Your task to perform on an android device: Open notification settings Image 0: 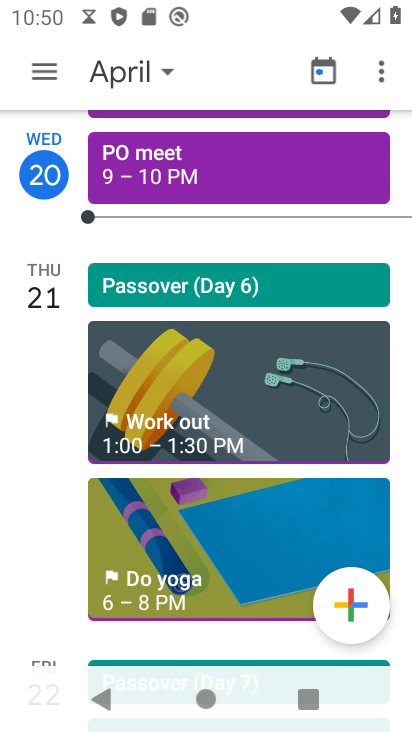
Step 0: press home button
Your task to perform on an android device: Open notification settings Image 1: 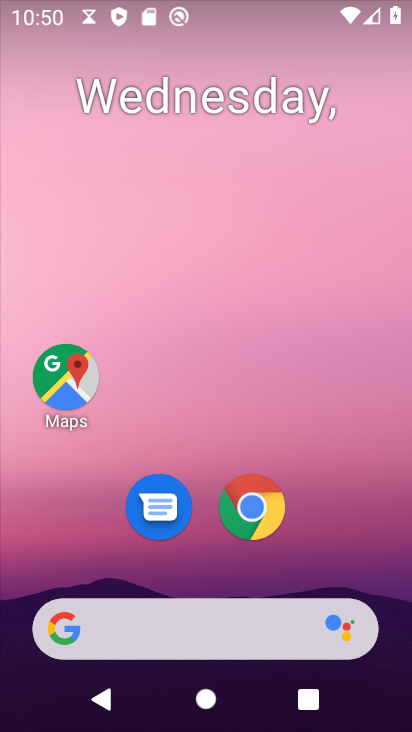
Step 1: drag from (258, 654) to (320, 148)
Your task to perform on an android device: Open notification settings Image 2: 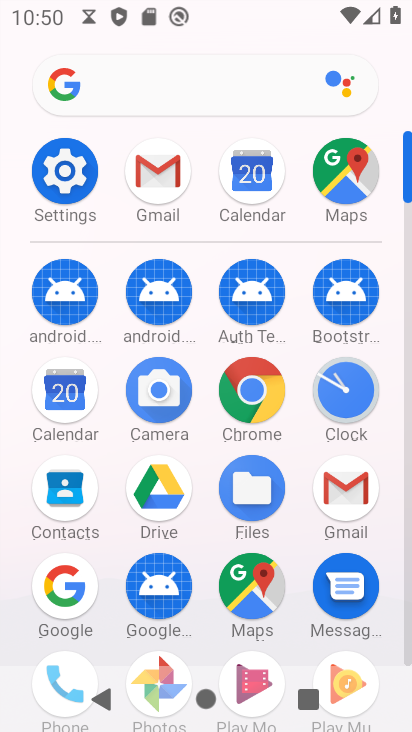
Step 2: drag from (199, 522) to (214, 383)
Your task to perform on an android device: Open notification settings Image 3: 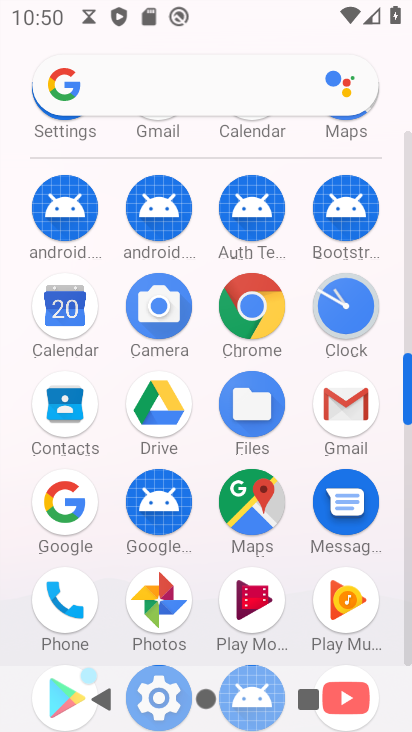
Step 3: drag from (203, 547) to (251, 283)
Your task to perform on an android device: Open notification settings Image 4: 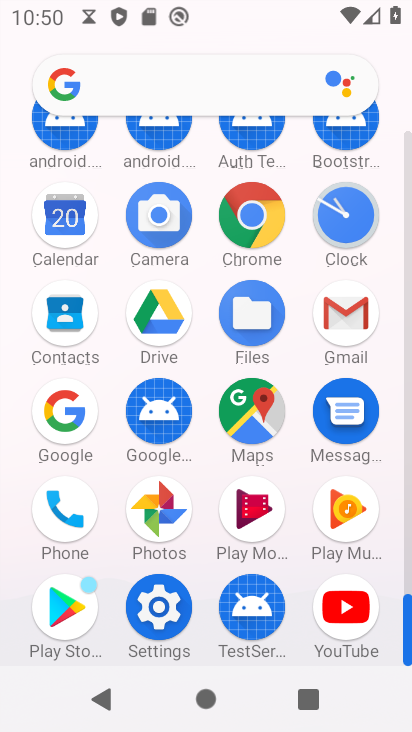
Step 4: click (150, 584)
Your task to perform on an android device: Open notification settings Image 5: 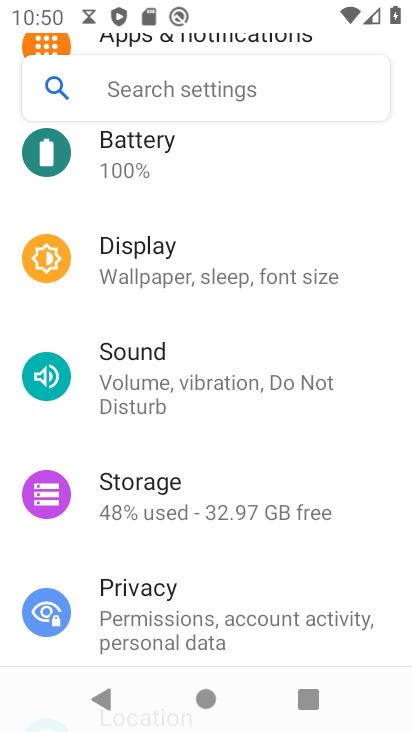
Step 5: drag from (199, 229) to (151, 573)
Your task to perform on an android device: Open notification settings Image 6: 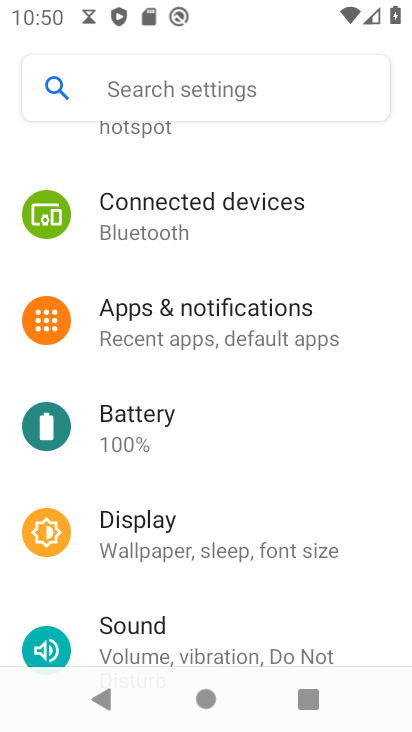
Step 6: drag from (193, 146) to (145, 470)
Your task to perform on an android device: Open notification settings Image 7: 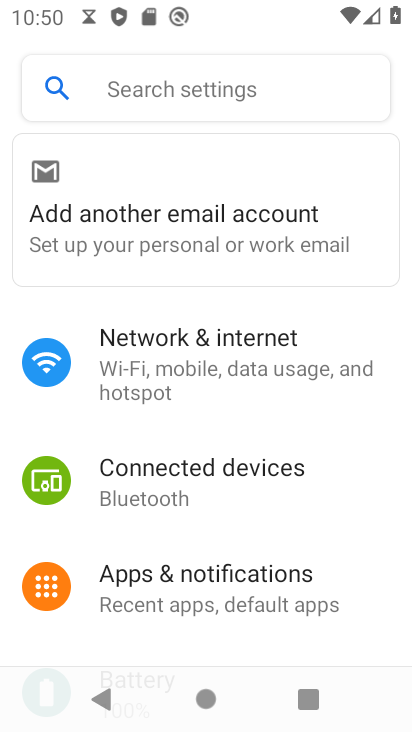
Step 7: click (168, 87)
Your task to perform on an android device: Open notification settings Image 8: 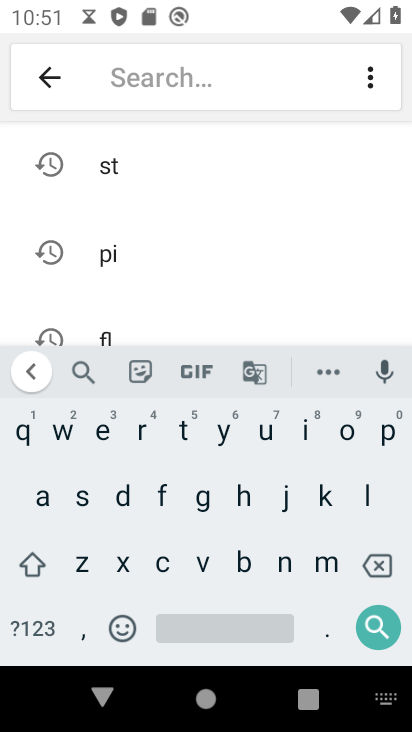
Step 8: click (280, 561)
Your task to perform on an android device: Open notification settings Image 9: 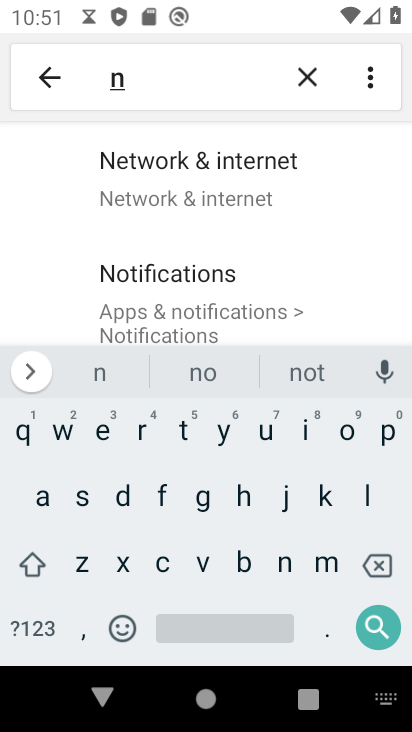
Step 9: click (180, 317)
Your task to perform on an android device: Open notification settings Image 10: 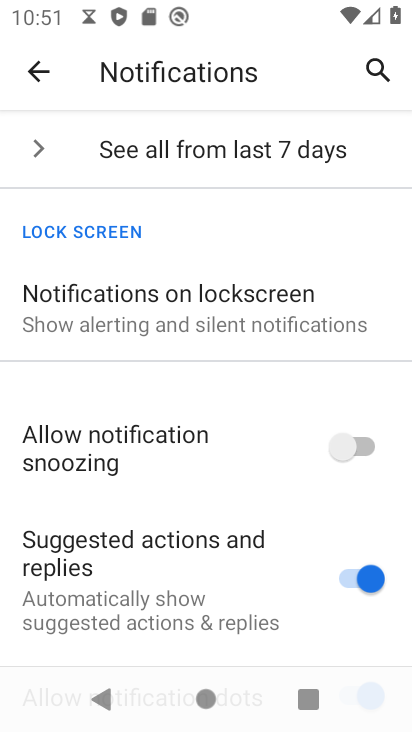
Step 10: click (180, 317)
Your task to perform on an android device: Open notification settings Image 11: 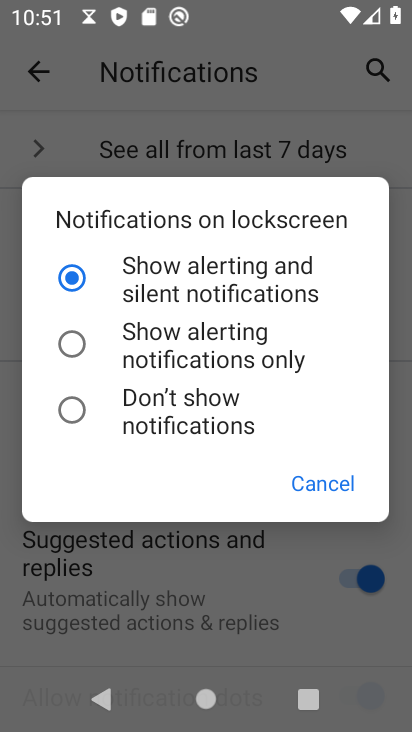
Step 11: task complete